Your task to perform on an android device: search for starred emails in the gmail app Image 0: 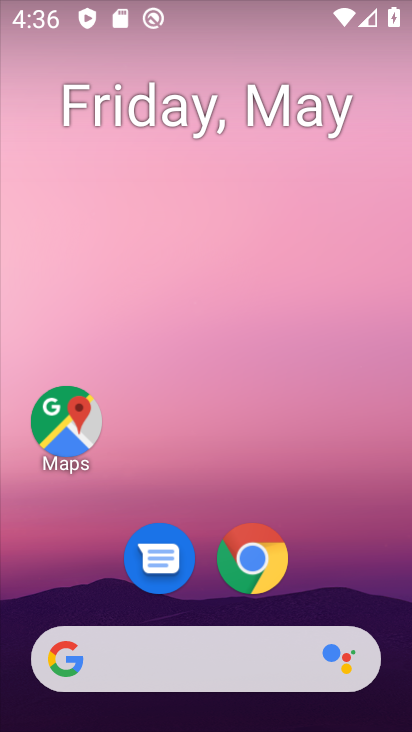
Step 0: drag from (378, 618) to (349, 140)
Your task to perform on an android device: search for starred emails in the gmail app Image 1: 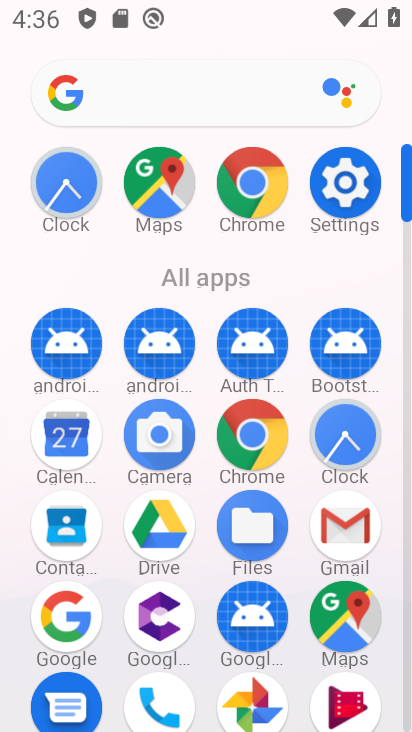
Step 1: click (341, 540)
Your task to perform on an android device: search for starred emails in the gmail app Image 2: 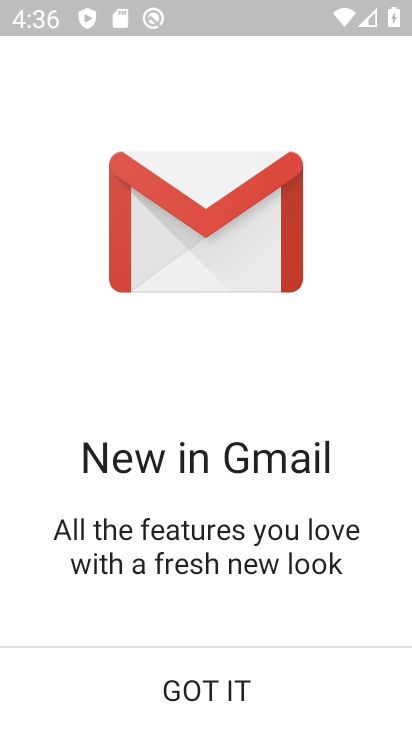
Step 2: click (217, 684)
Your task to perform on an android device: search for starred emails in the gmail app Image 3: 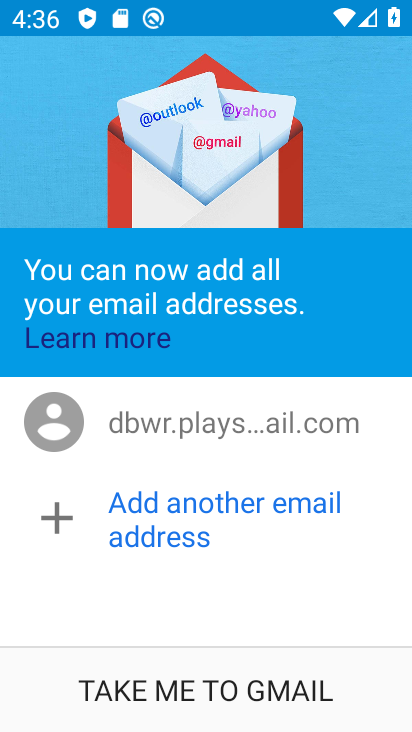
Step 3: click (217, 684)
Your task to perform on an android device: search for starred emails in the gmail app Image 4: 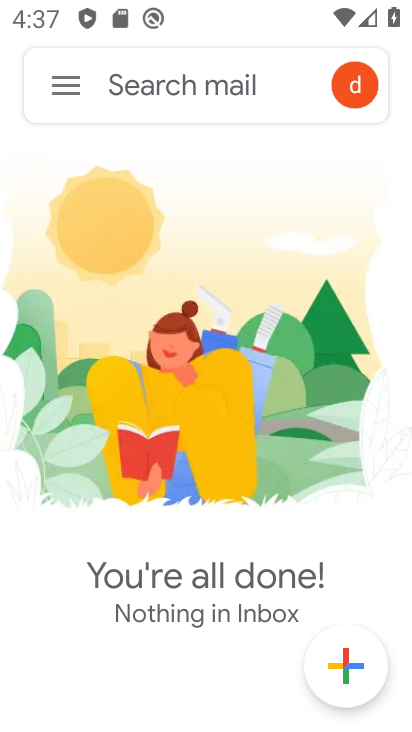
Step 4: task complete